Your task to perform on an android device: Search for "logitech g pro" on amazon.com, select the first entry, and add it to the cart. Image 0: 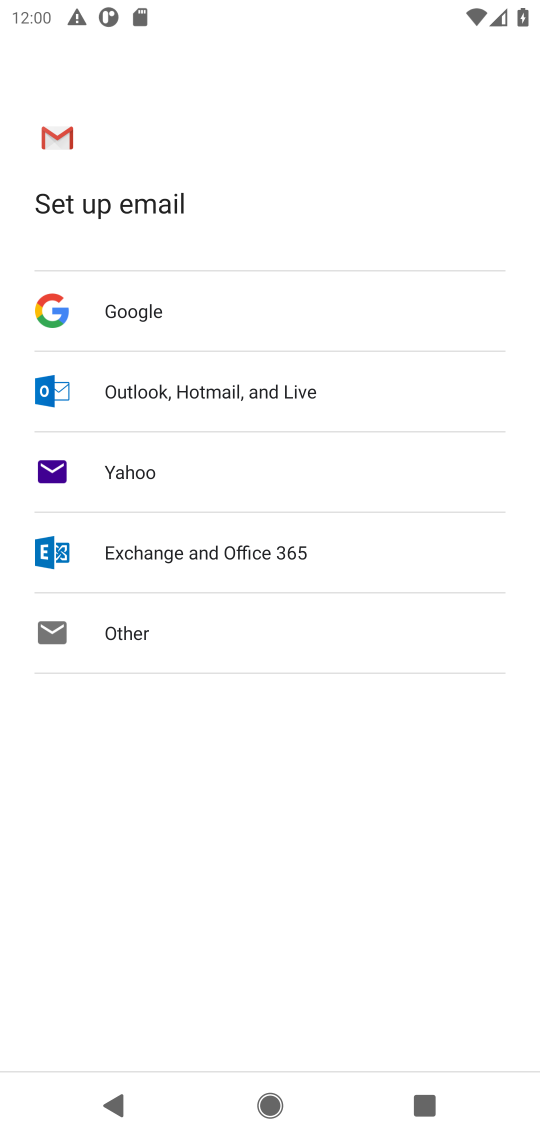
Step 0: press home button
Your task to perform on an android device: Search for "logitech g pro" on amazon.com, select the first entry, and add it to the cart. Image 1: 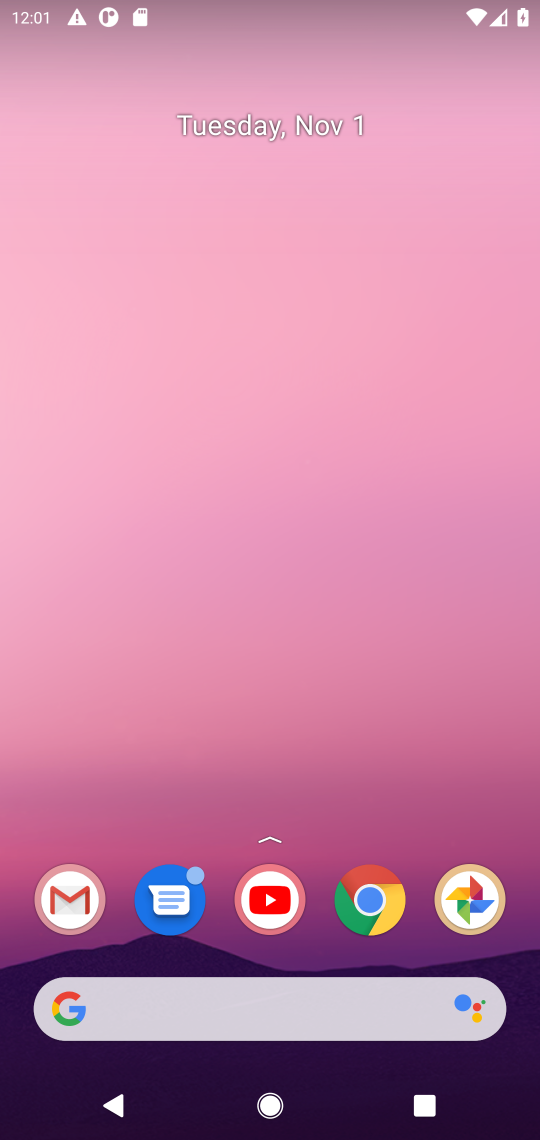
Step 1: click (362, 905)
Your task to perform on an android device: Search for "logitech g pro" on amazon.com, select the first entry, and add it to the cart. Image 2: 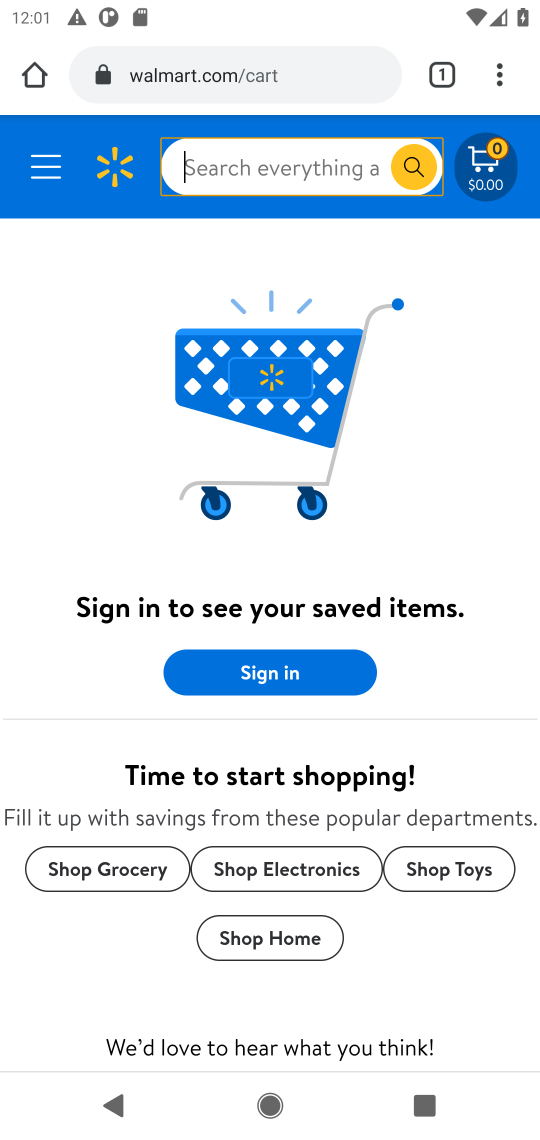
Step 2: click (290, 78)
Your task to perform on an android device: Search for "logitech g pro" on amazon.com, select the first entry, and add it to the cart. Image 3: 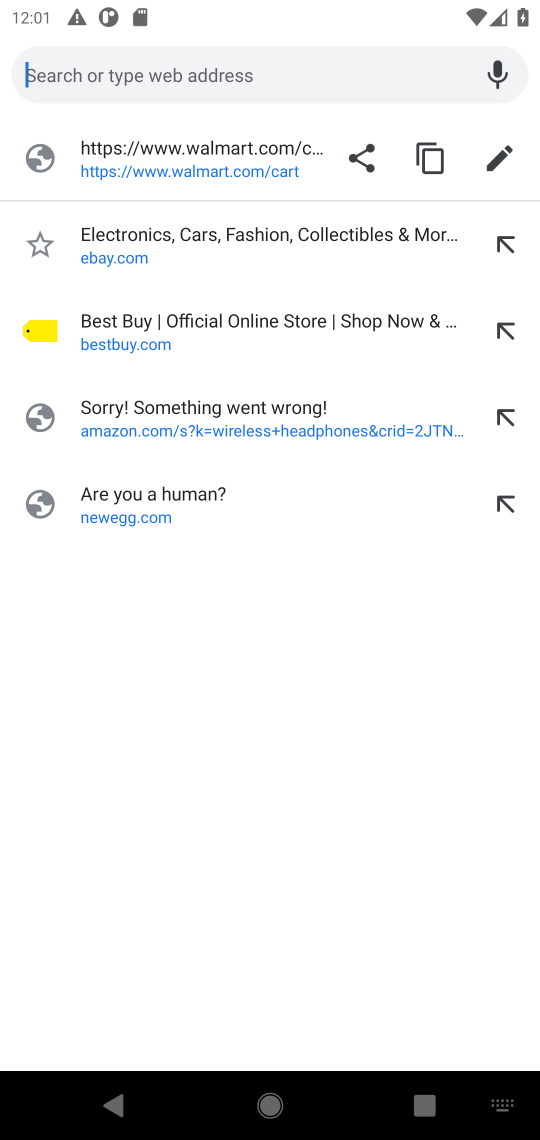
Step 3: click (89, 418)
Your task to perform on an android device: Search for "logitech g pro" on amazon.com, select the first entry, and add it to the cart. Image 4: 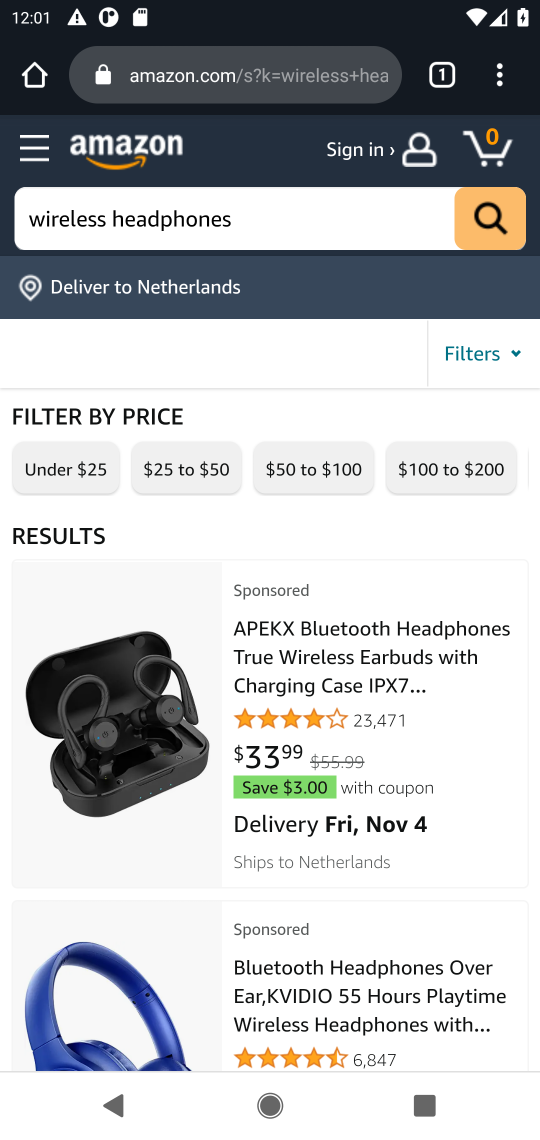
Step 4: click (181, 220)
Your task to perform on an android device: Search for "logitech g pro" on amazon.com, select the first entry, and add it to the cart. Image 5: 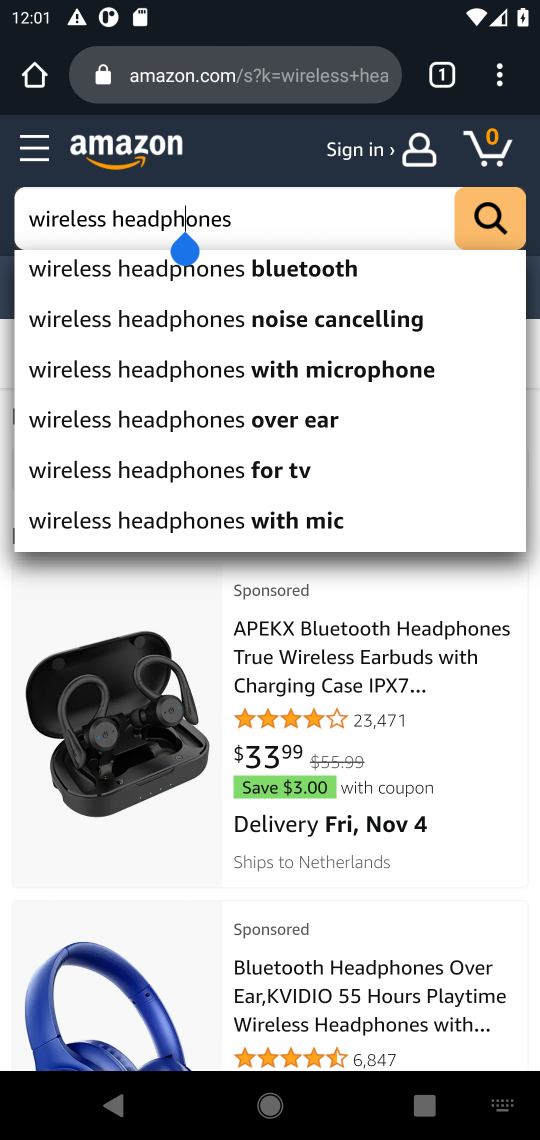
Step 5: click (277, 226)
Your task to perform on an android device: Search for "logitech g pro" on amazon.com, select the first entry, and add it to the cart. Image 6: 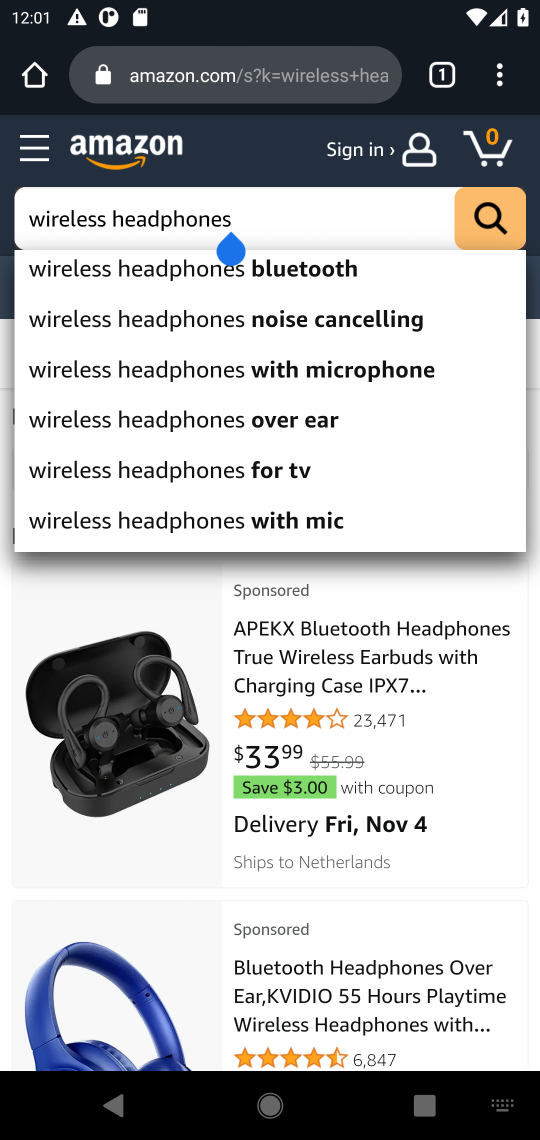
Step 6: click (276, 225)
Your task to perform on an android device: Search for "logitech g pro" on amazon.com, select the first entry, and add it to the cart. Image 7: 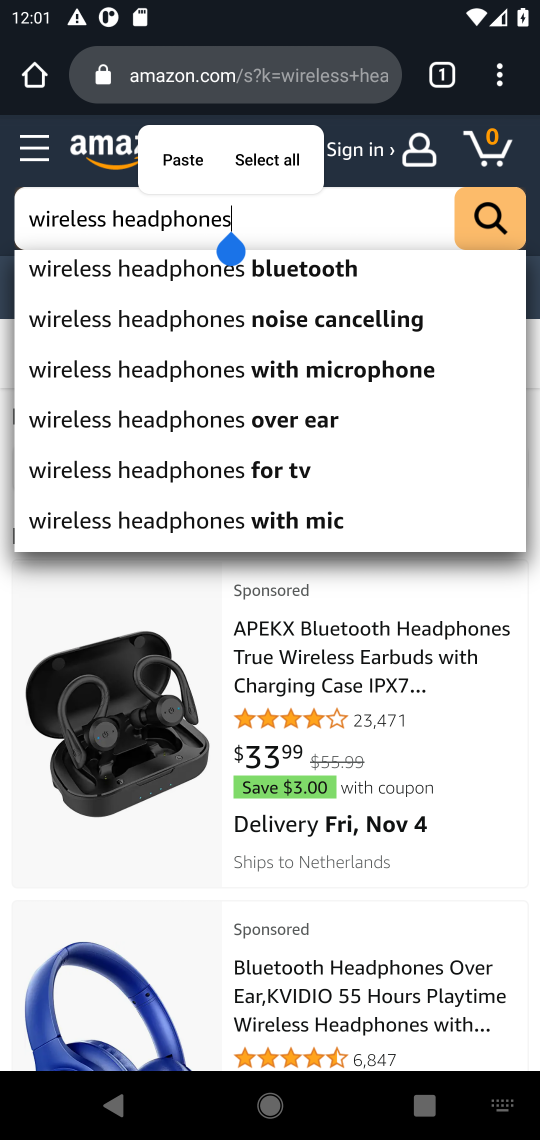
Step 7: click (159, 223)
Your task to perform on an android device: Search for "logitech g pro" on amazon.com, select the first entry, and add it to the cart. Image 8: 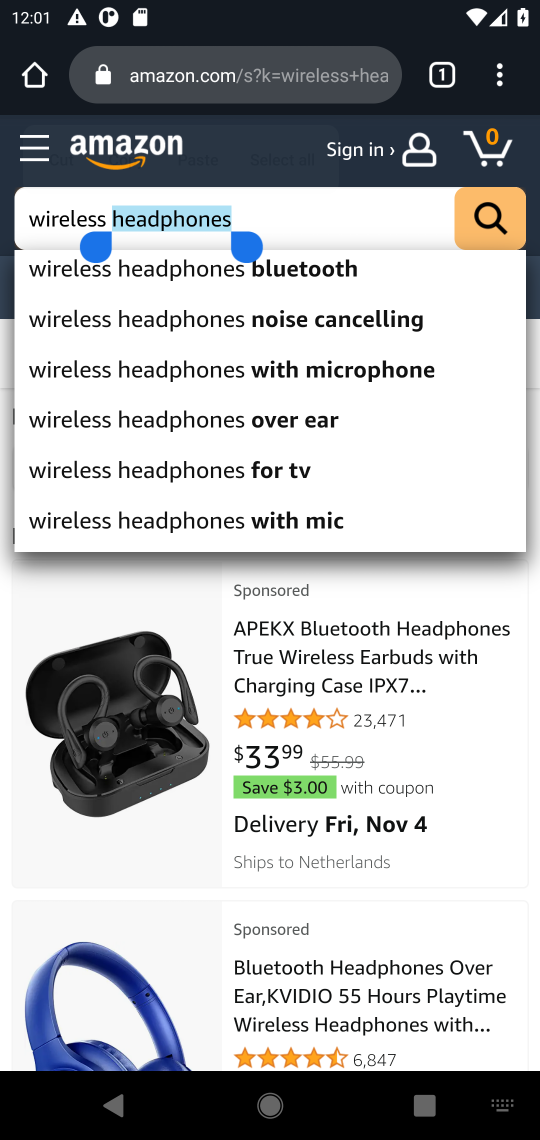
Step 8: click (257, 163)
Your task to perform on an android device: Search for "logitech g pro" on amazon.com, select the first entry, and add it to the cart. Image 9: 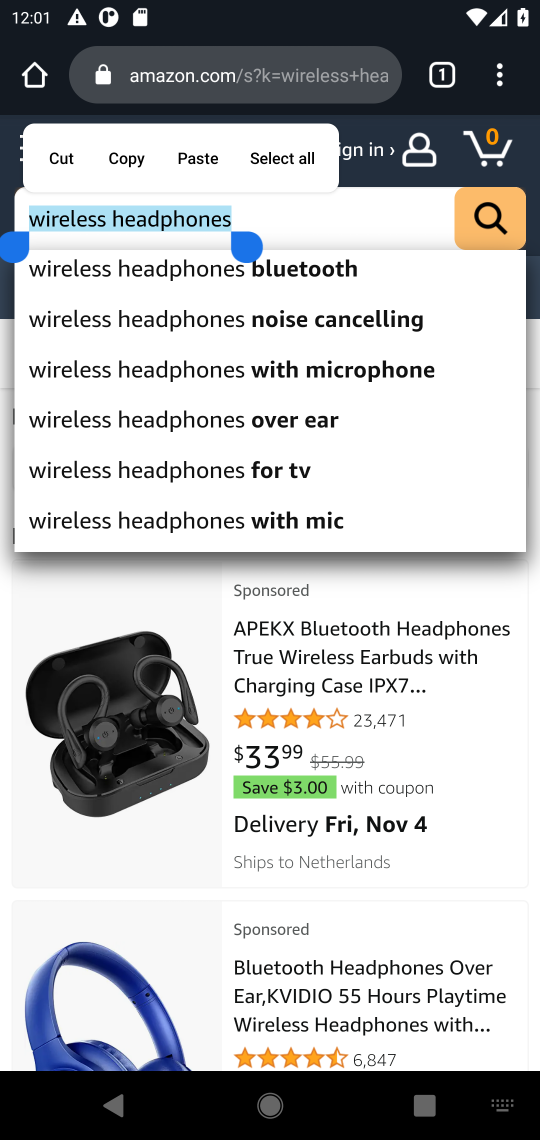
Step 9: click (66, 165)
Your task to perform on an android device: Search for "logitech g pro" on amazon.com, select the first entry, and add it to the cart. Image 10: 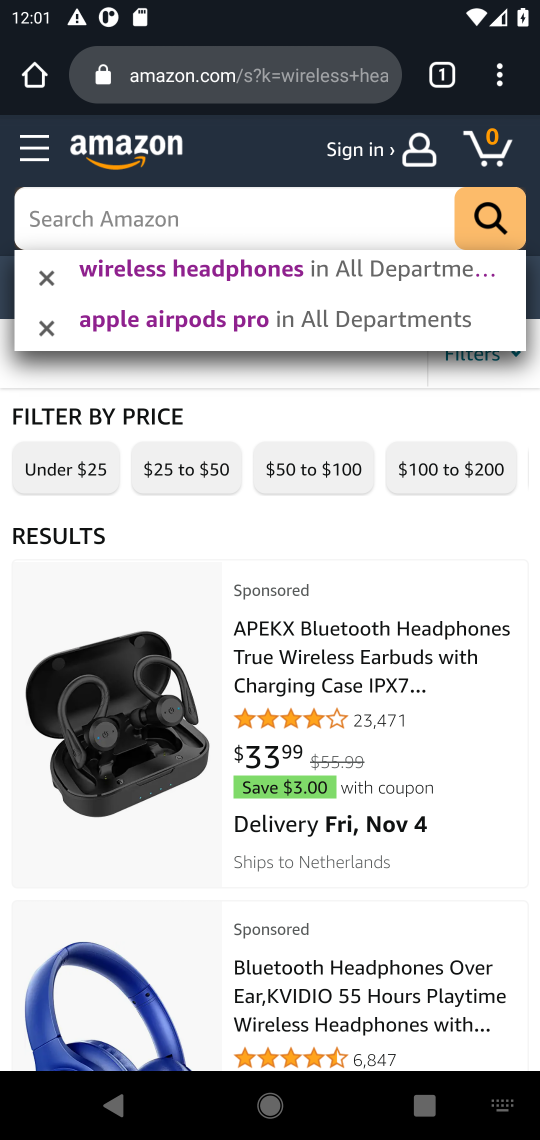
Step 10: type "logitech g pro"
Your task to perform on an android device: Search for "logitech g pro" on amazon.com, select the first entry, and add it to the cart. Image 11: 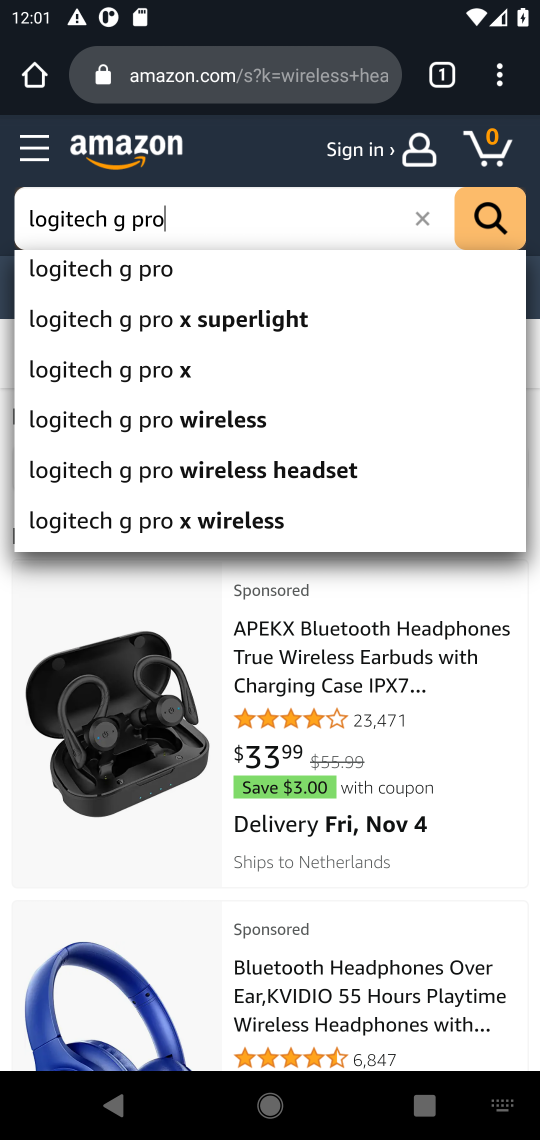
Step 11: press enter
Your task to perform on an android device: Search for "logitech g pro" on amazon.com, select the first entry, and add it to the cart. Image 12: 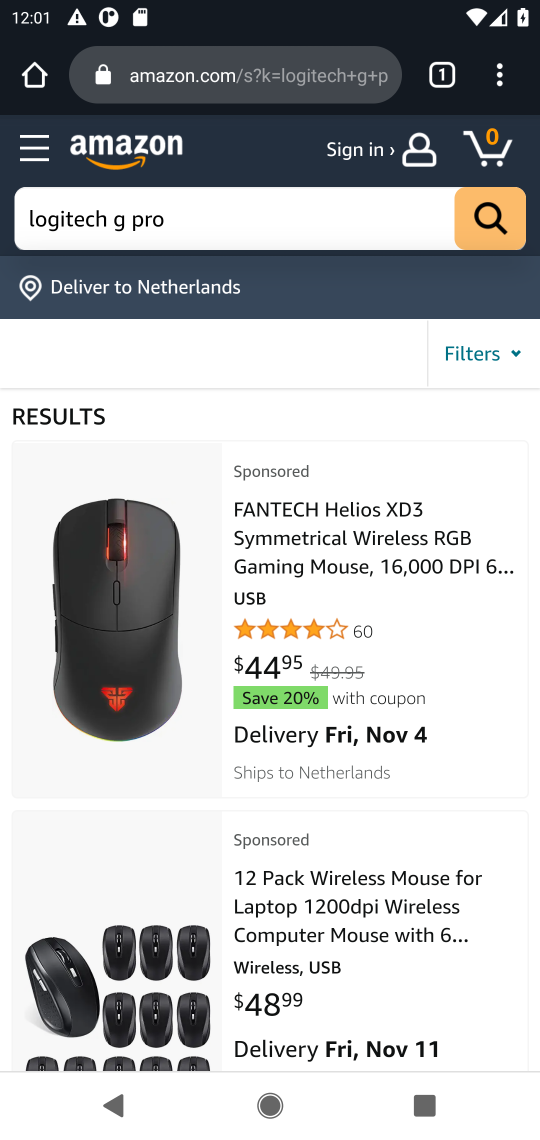
Step 12: drag from (373, 948) to (419, 561)
Your task to perform on an android device: Search for "logitech g pro" on amazon.com, select the first entry, and add it to the cart. Image 13: 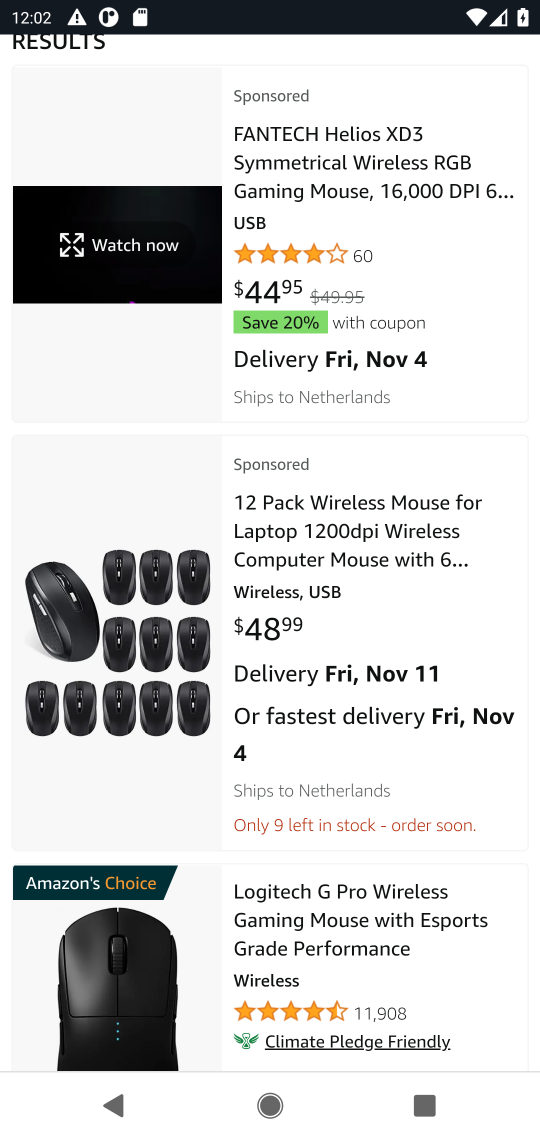
Step 13: click (278, 920)
Your task to perform on an android device: Search for "logitech g pro" on amazon.com, select the first entry, and add it to the cart. Image 14: 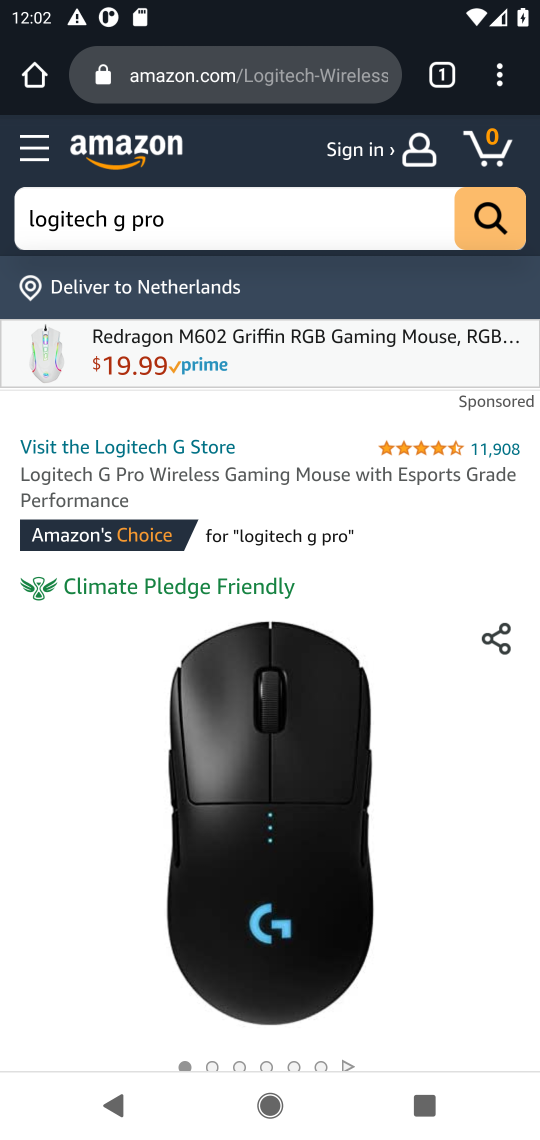
Step 14: task complete